Your task to perform on an android device: Search for sushi restaurants on Maps Image 0: 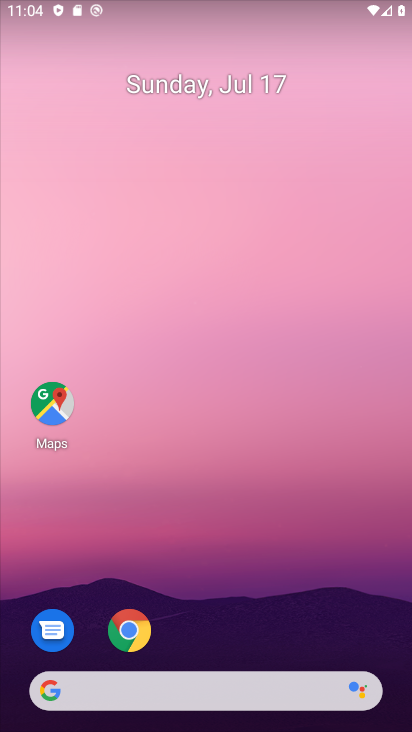
Step 0: drag from (168, 641) to (258, 51)
Your task to perform on an android device: Search for sushi restaurants on Maps Image 1: 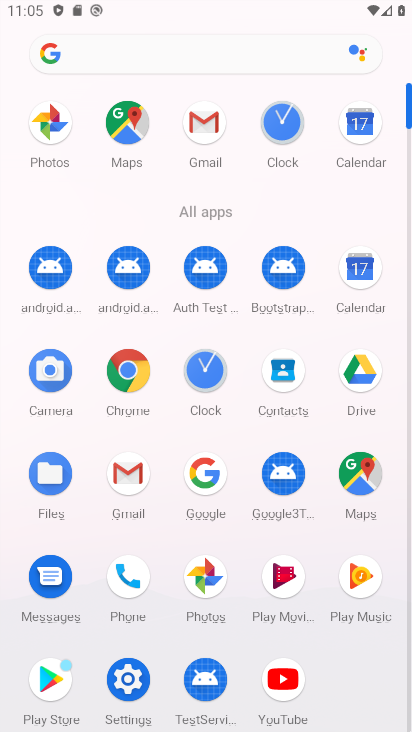
Step 1: click (357, 483)
Your task to perform on an android device: Search for sushi restaurants on Maps Image 2: 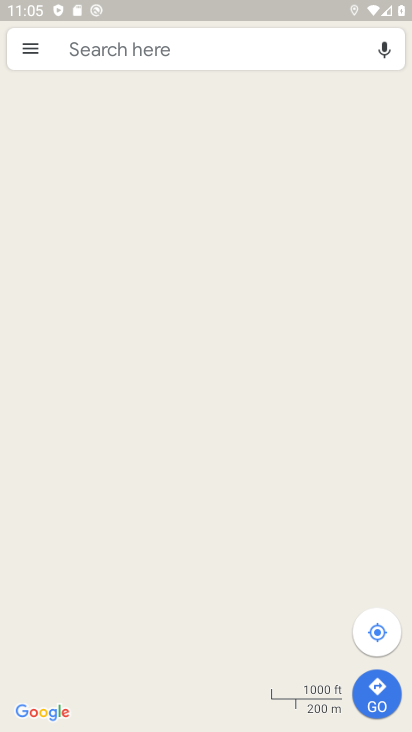
Step 2: click (147, 37)
Your task to perform on an android device: Search for sushi restaurants on Maps Image 3: 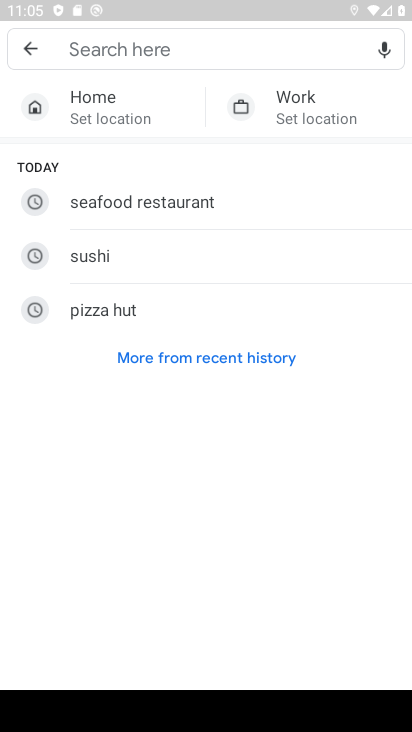
Step 3: type "sushi restaurants"
Your task to perform on an android device: Search for sushi restaurants on Maps Image 4: 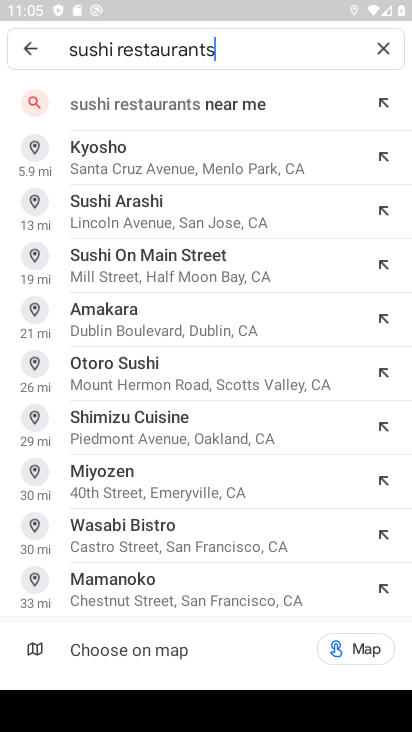
Step 4: click (389, 36)
Your task to perform on an android device: Search for sushi restaurants on Maps Image 5: 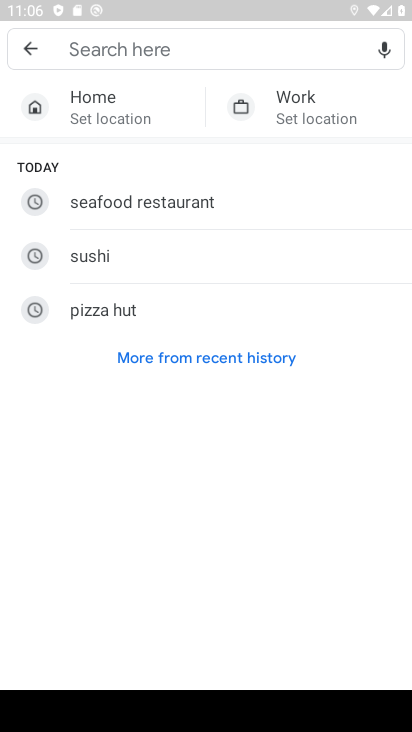
Step 5: type "Sushi restaurants"
Your task to perform on an android device: Search for sushi restaurants on Maps Image 6: 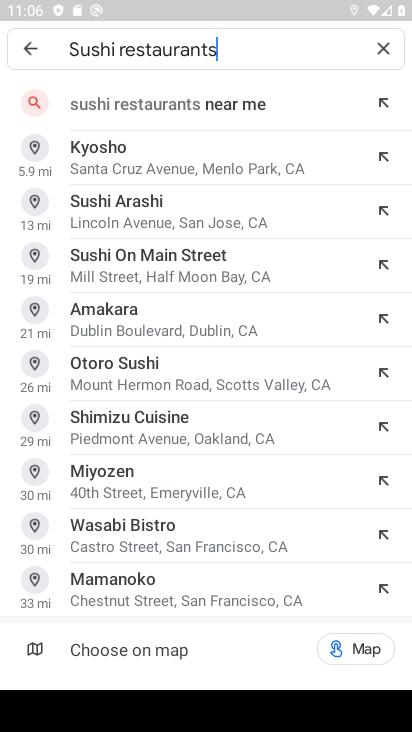
Step 6: click (203, 101)
Your task to perform on an android device: Search for sushi restaurants on Maps Image 7: 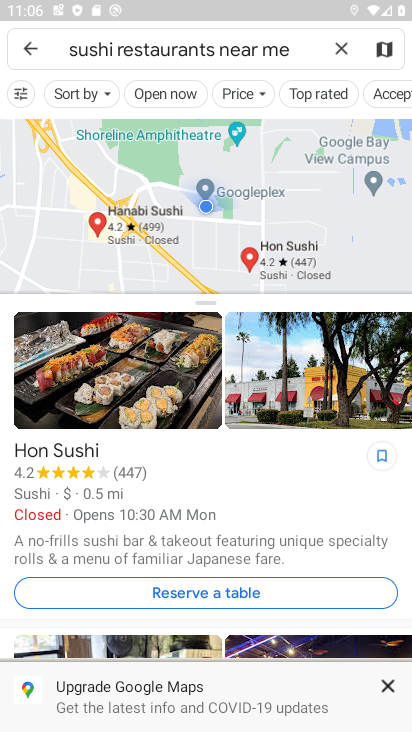
Step 7: task complete